Your task to perform on an android device: Open the stopwatch Image 0: 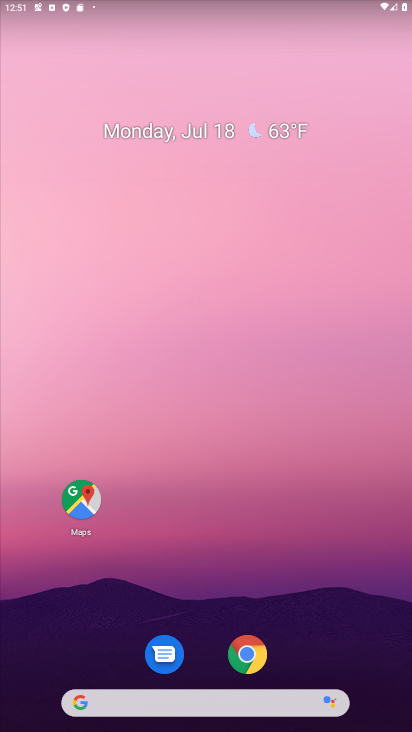
Step 0: drag from (226, 604) to (211, 118)
Your task to perform on an android device: Open the stopwatch Image 1: 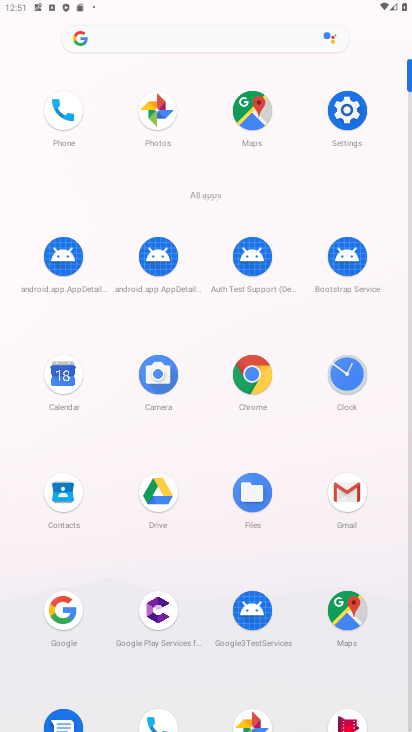
Step 1: click (361, 370)
Your task to perform on an android device: Open the stopwatch Image 2: 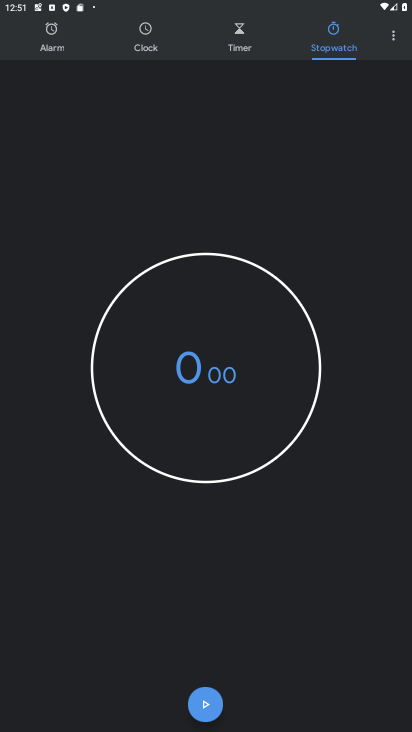
Step 2: task complete